Your task to perform on an android device: Go to Google Image 0: 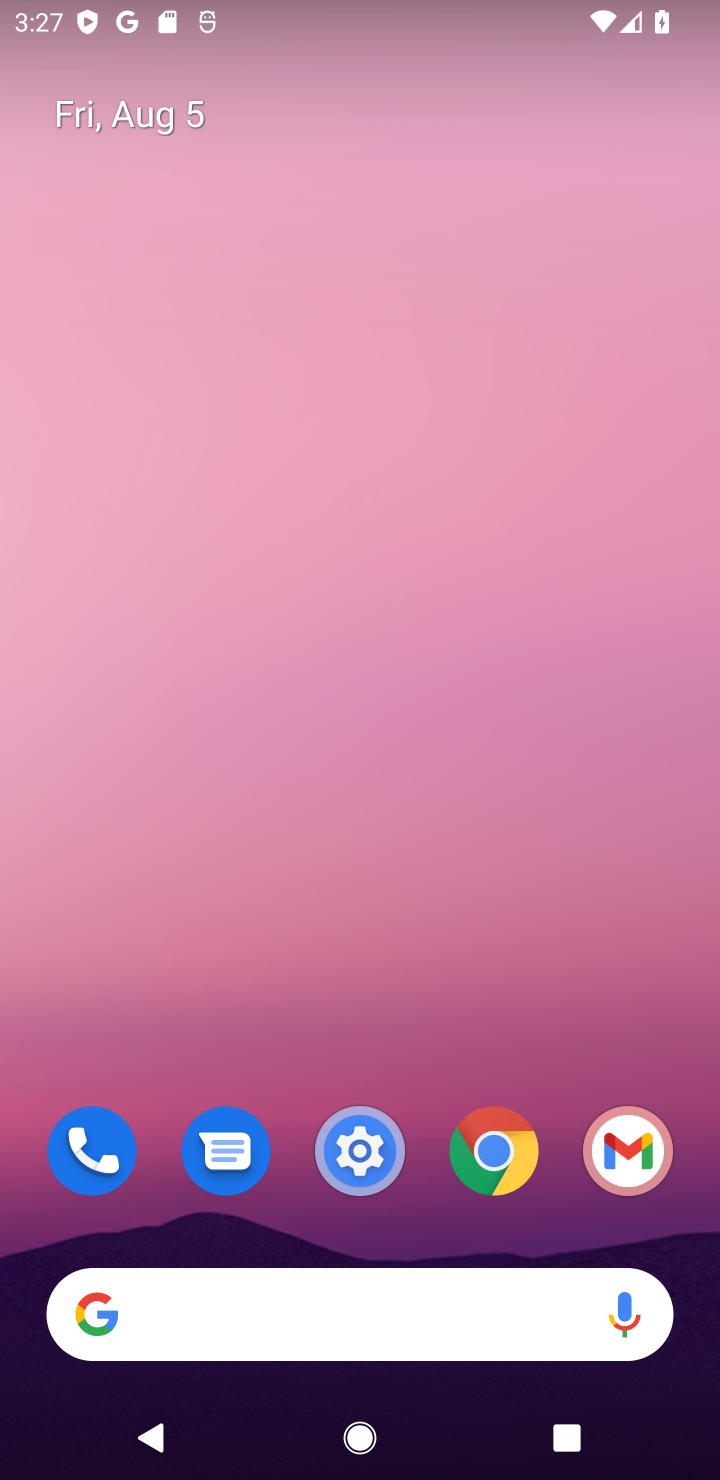
Step 0: drag from (399, 1044) to (337, 16)
Your task to perform on an android device: Go to Google Image 1: 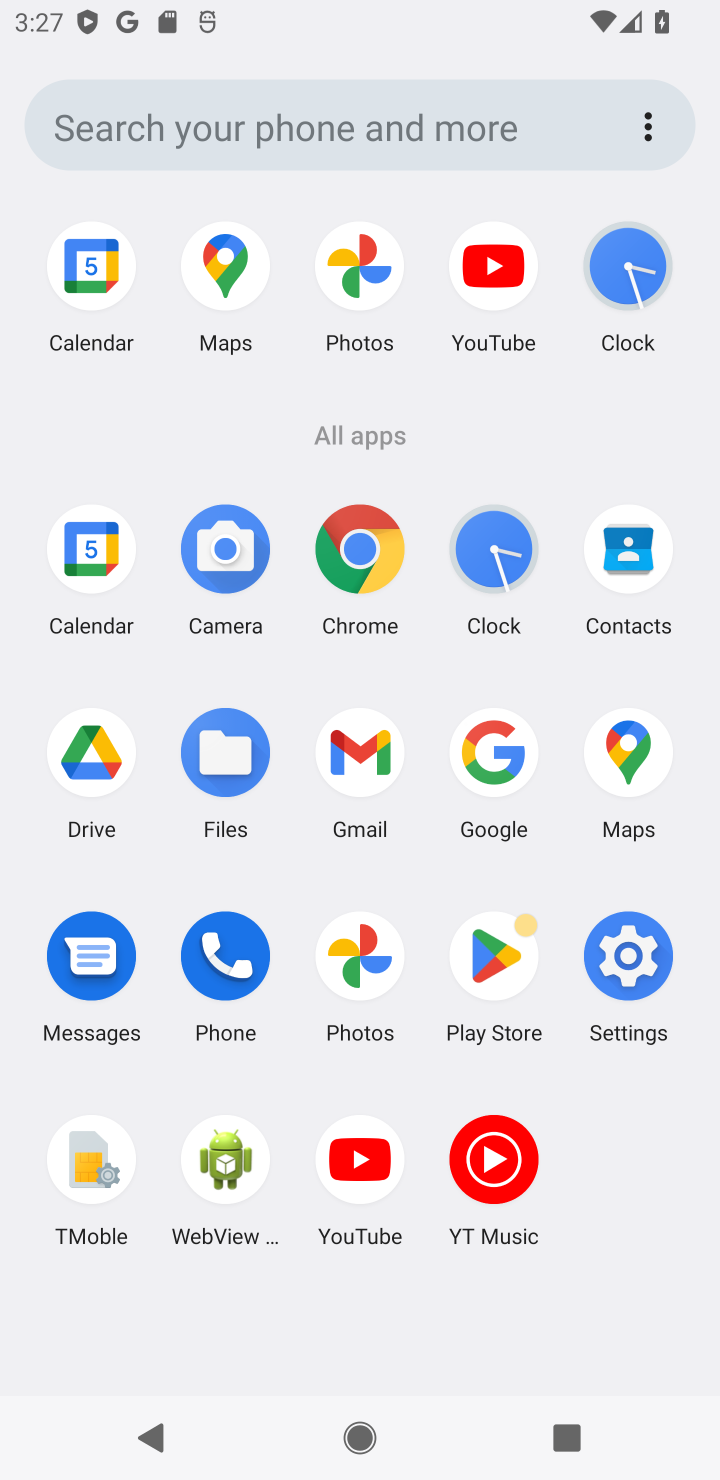
Step 1: click (504, 723)
Your task to perform on an android device: Go to Google Image 2: 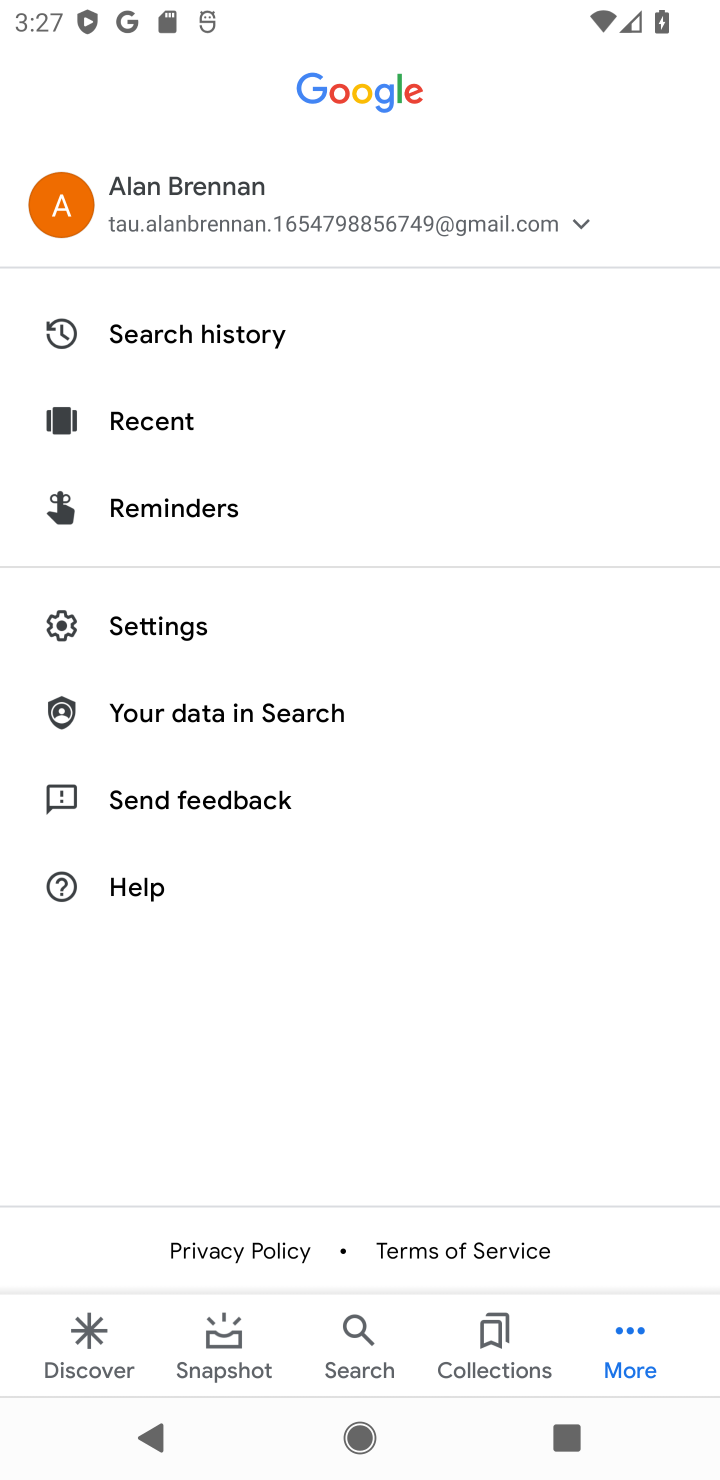
Step 2: task complete